Your task to perform on an android device: empty trash in the gmail app Image 0: 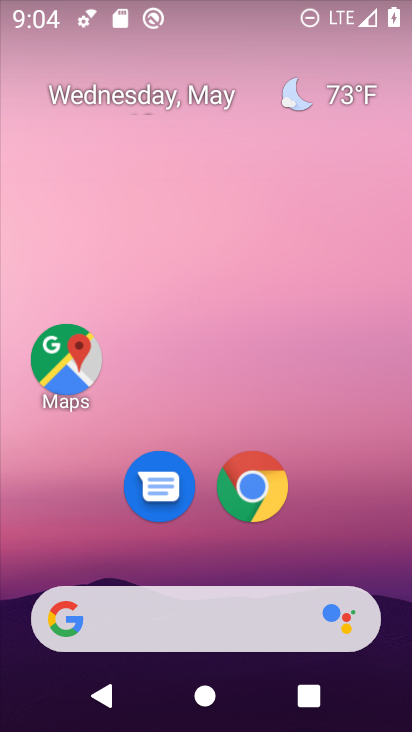
Step 0: drag from (403, 610) to (250, 129)
Your task to perform on an android device: empty trash in the gmail app Image 1: 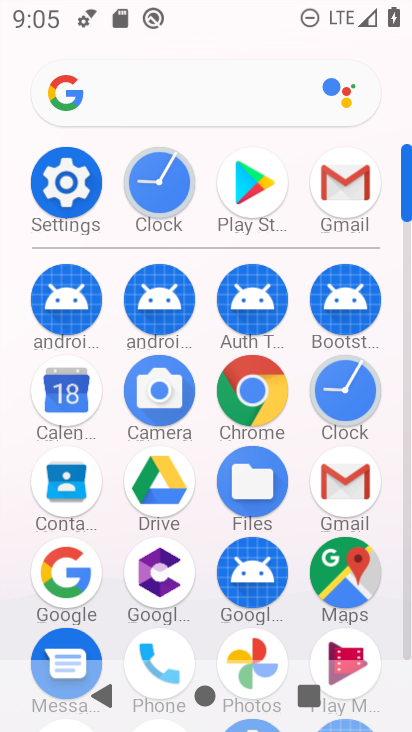
Step 1: click (342, 476)
Your task to perform on an android device: empty trash in the gmail app Image 2: 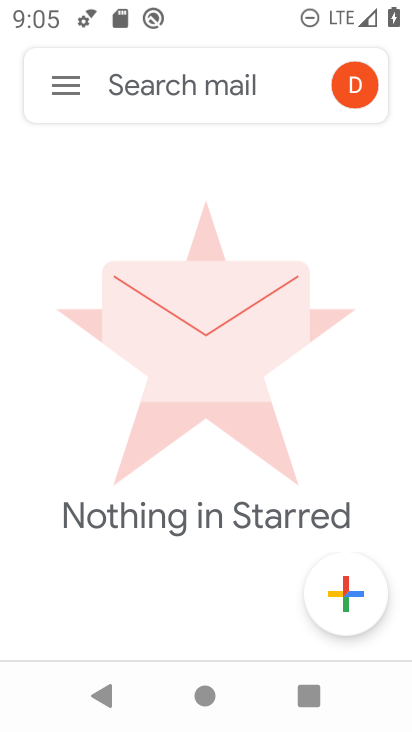
Step 2: click (63, 84)
Your task to perform on an android device: empty trash in the gmail app Image 3: 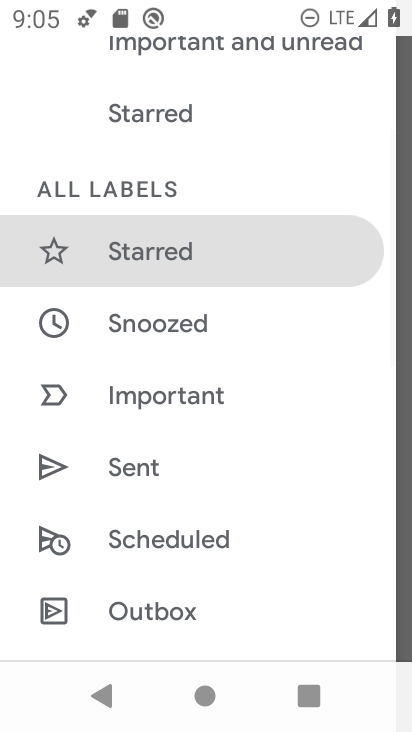
Step 3: drag from (223, 527) to (227, 133)
Your task to perform on an android device: empty trash in the gmail app Image 4: 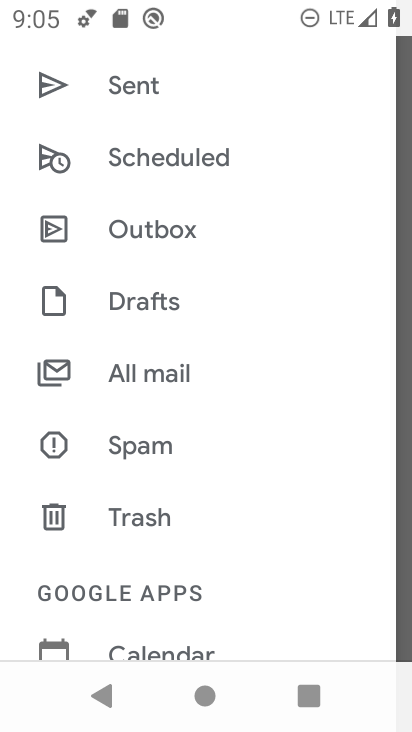
Step 4: click (130, 522)
Your task to perform on an android device: empty trash in the gmail app Image 5: 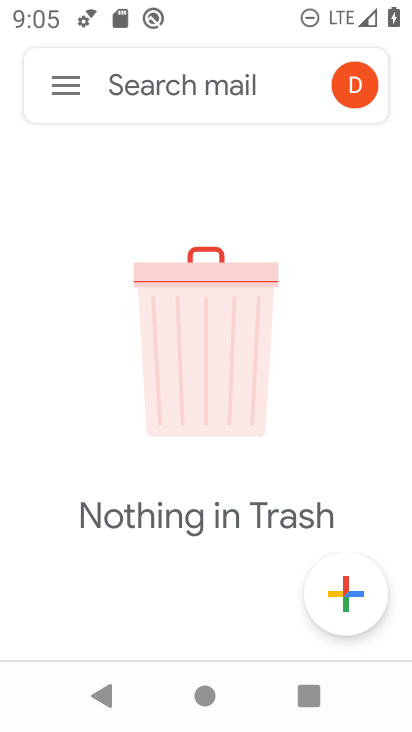
Step 5: task complete